Your task to perform on an android device: Open my contact list Image 0: 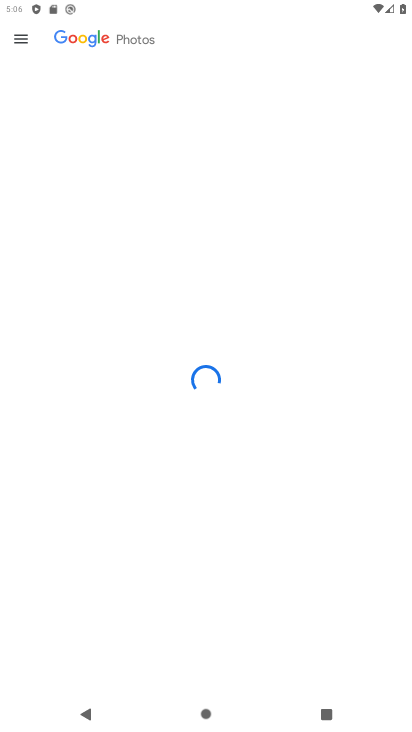
Step 0: press home button
Your task to perform on an android device: Open my contact list Image 1: 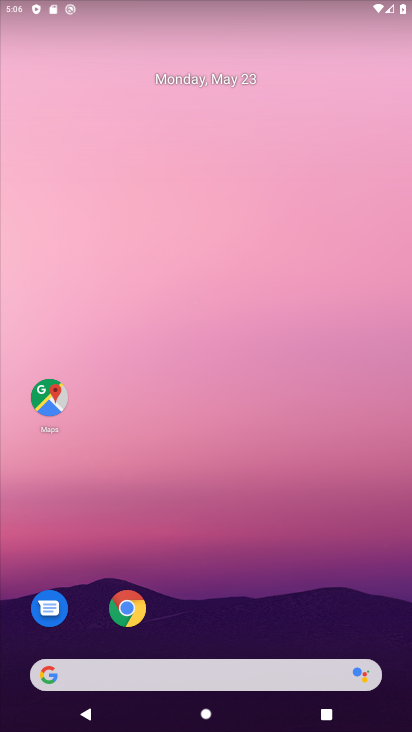
Step 1: drag from (186, 587) to (193, 188)
Your task to perform on an android device: Open my contact list Image 2: 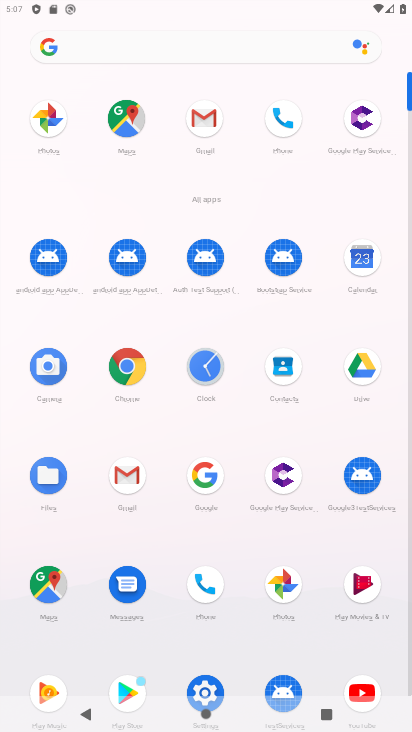
Step 2: click (274, 376)
Your task to perform on an android device: Open my contact list Image 3: 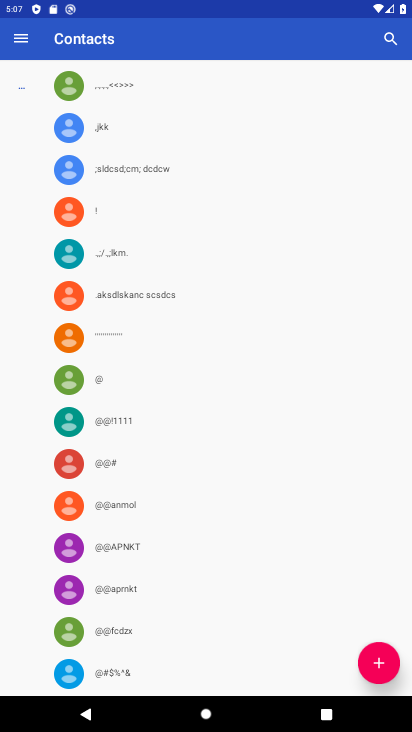
Step 3: task complete